Your task to perform on an android device: Go to Yahoo.com Image 0: 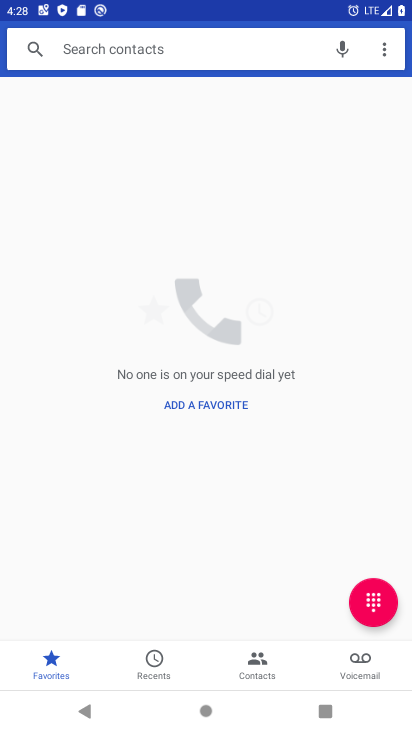
Step 0: press home button
Your task to perform on an android device: Go to Yahoo.com Image 1: 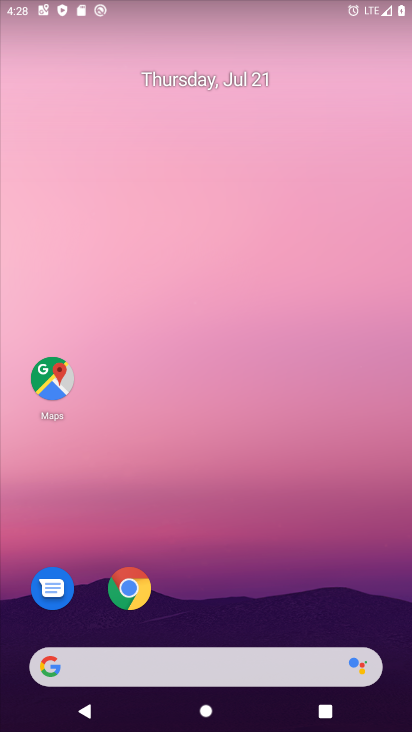
Step 1: drag from (307, 561) to (281, 23)
Your task to perform on an android device: Go to Yahoo.com Image 2: 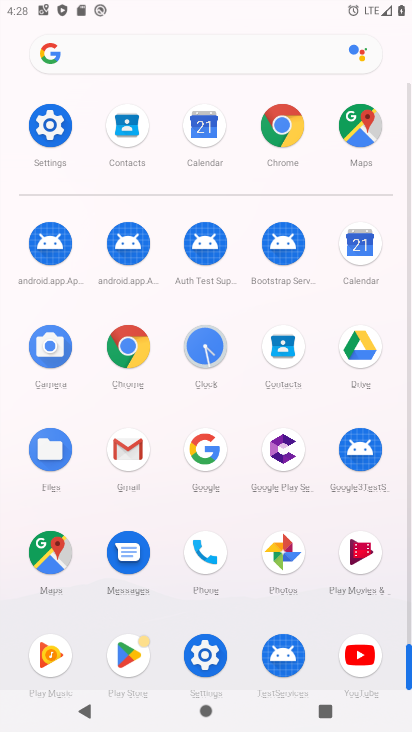
Step 2: click (128, 347)
Your task to perform on an android device: Go to Yahoo.com Image 3: 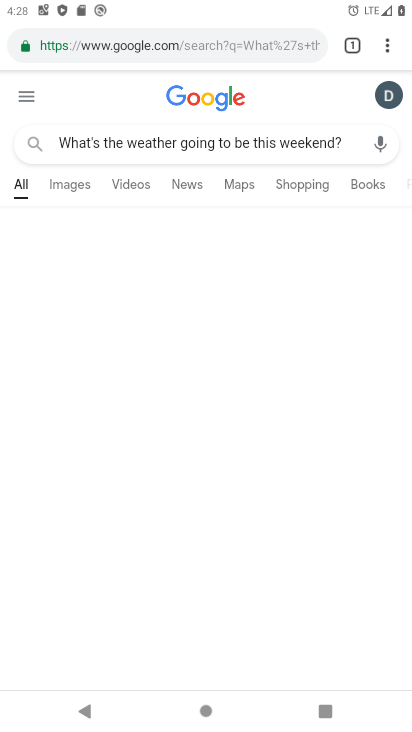
Step 3: click (248, 38)
Your task to perform on an android device: Go to Yahoo.com Image 4: 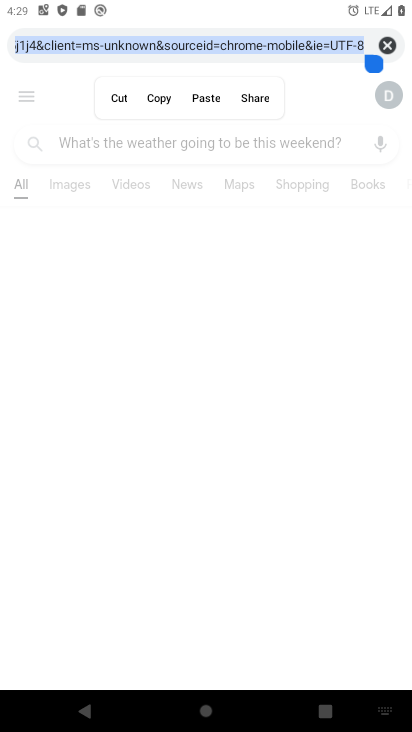
Step 4: click (380, 41)
Your task to perform on an android device: Go to Yahoo.com Image 5: 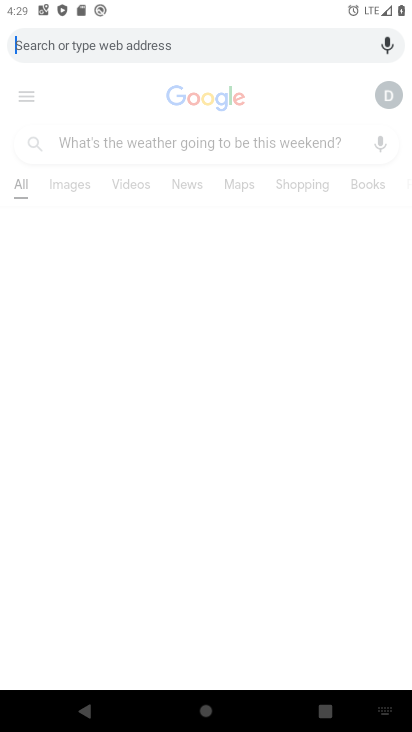
Step 5: type "Yahoo.com"
Your task to perform on an android device: Go to Yahoo.com Image 6: 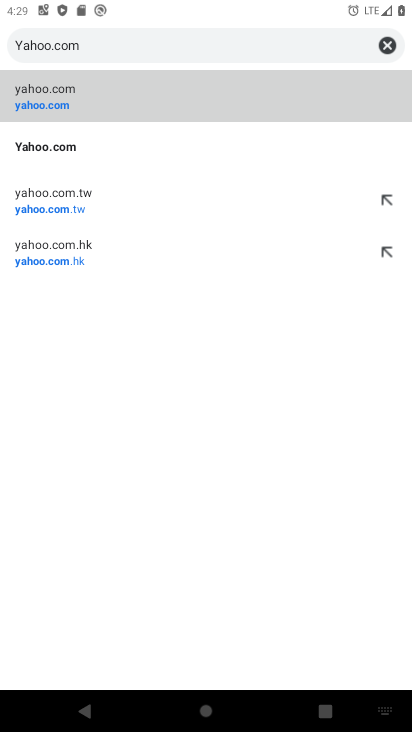
Step 6: click (33, 107)
Your task to perform on an android device: Go to Yahoo.com Image 7: 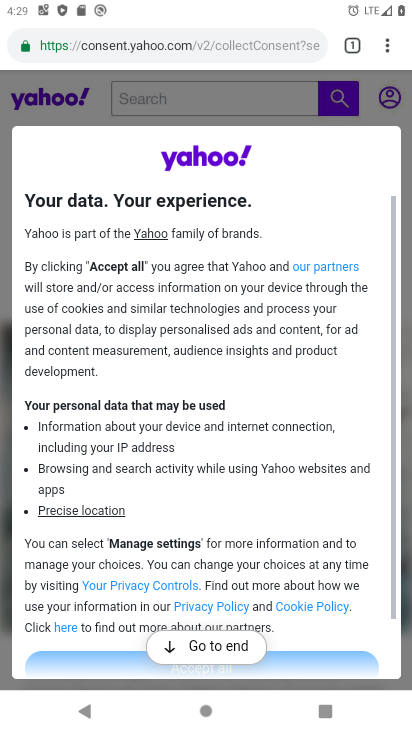
Step 7: click (286, 659)
Your task to perform on an android device: Go to Yahoo.com Image 8: 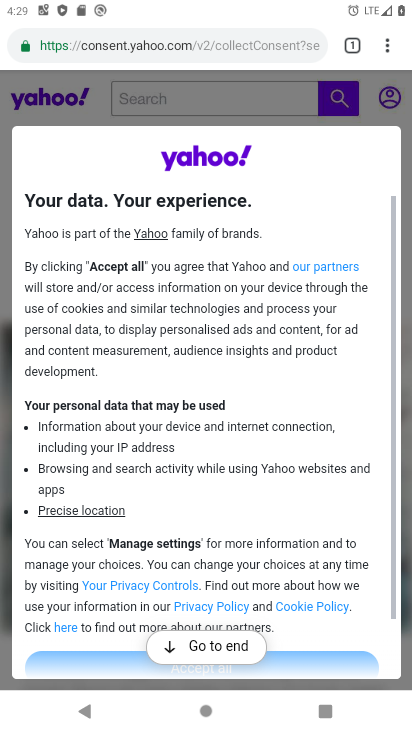
Step 8: click (241, 637)
Your task to perform on an android device: Go to Yahoo.com Image 9: 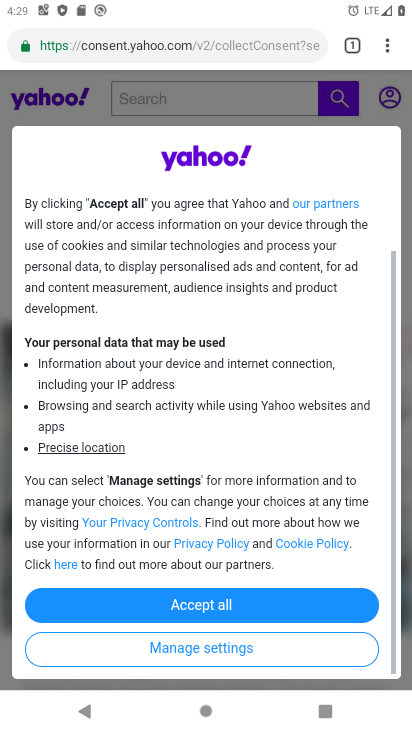
Step 9: click (245, 600)
Your task to perform on an android device: Go to Yahoo.com Image 10: 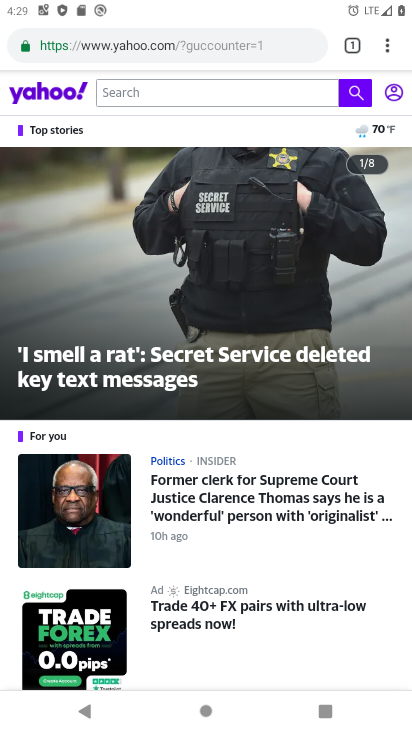
Step 10: task complete